Your task to perform on an android device: check out phone information Image 0: 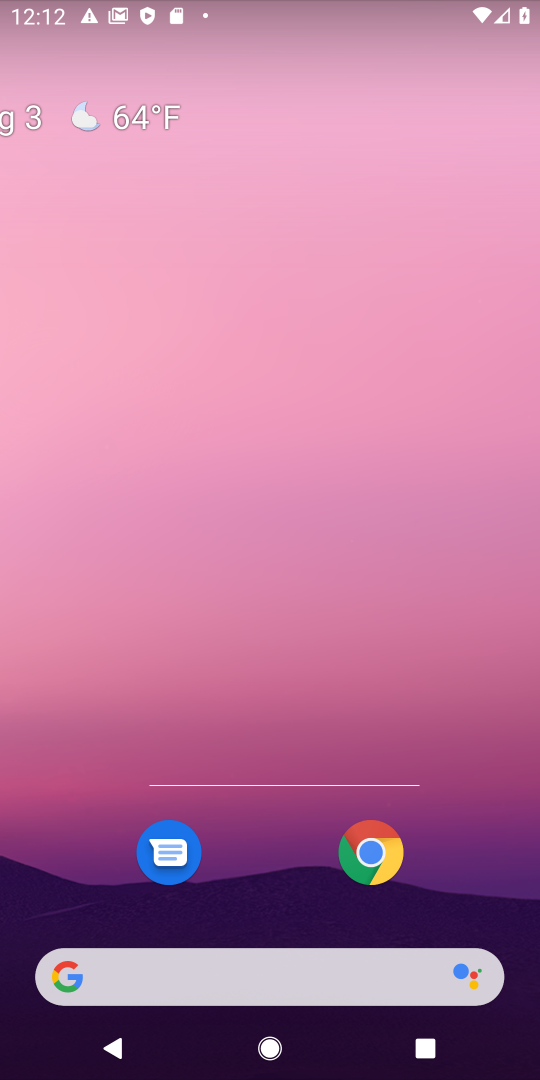
Step 0: drag from (265, 895) to (319, 13)
Your task to perform on an android device: check out phone information Image 1: 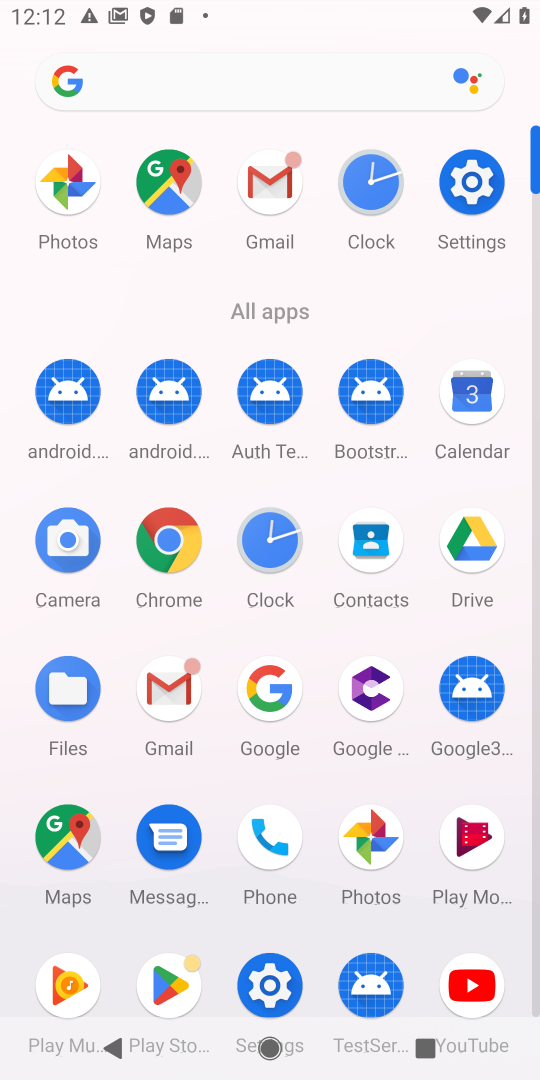
Step 1: click (468, 176)
Your task to perform on an android device: check out phone information Image 2: 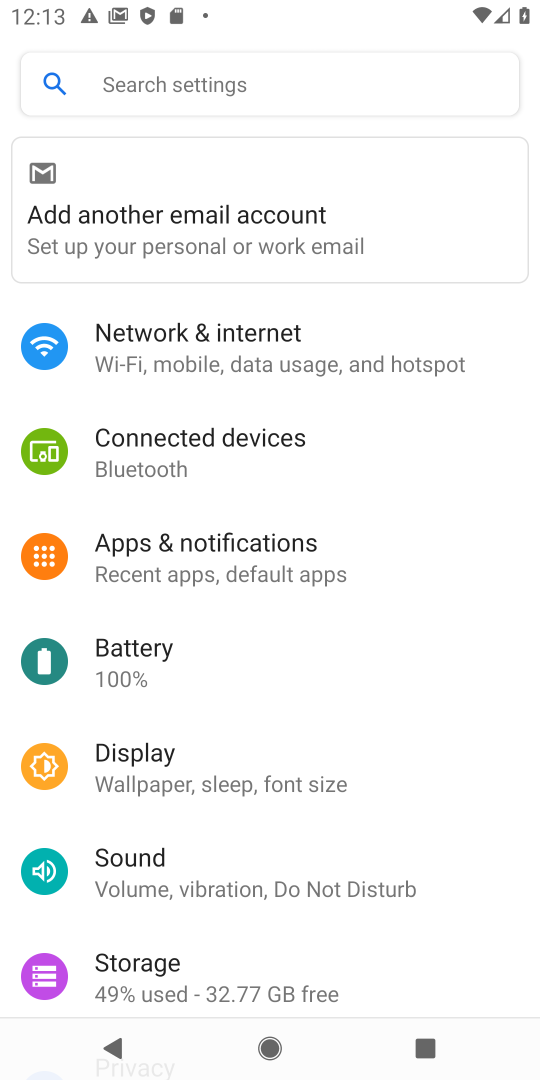
Step 2: drag from (219, 952) to (280, 39)
Your task to perform on an android device: check out phone information Image 3: 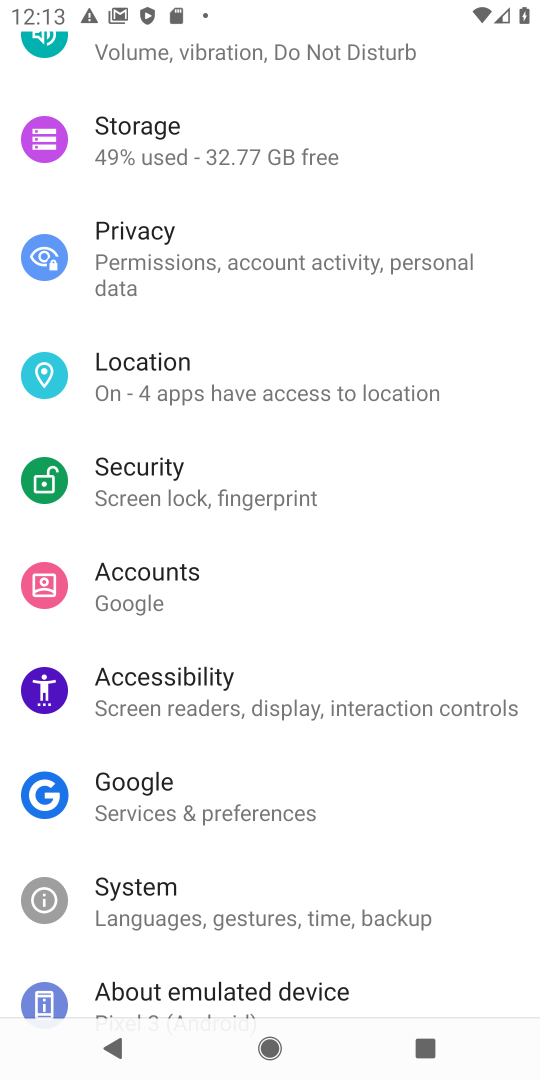
Step 3: click (250, 983)
Your task to perform on an android device: check out phone information Image 4: 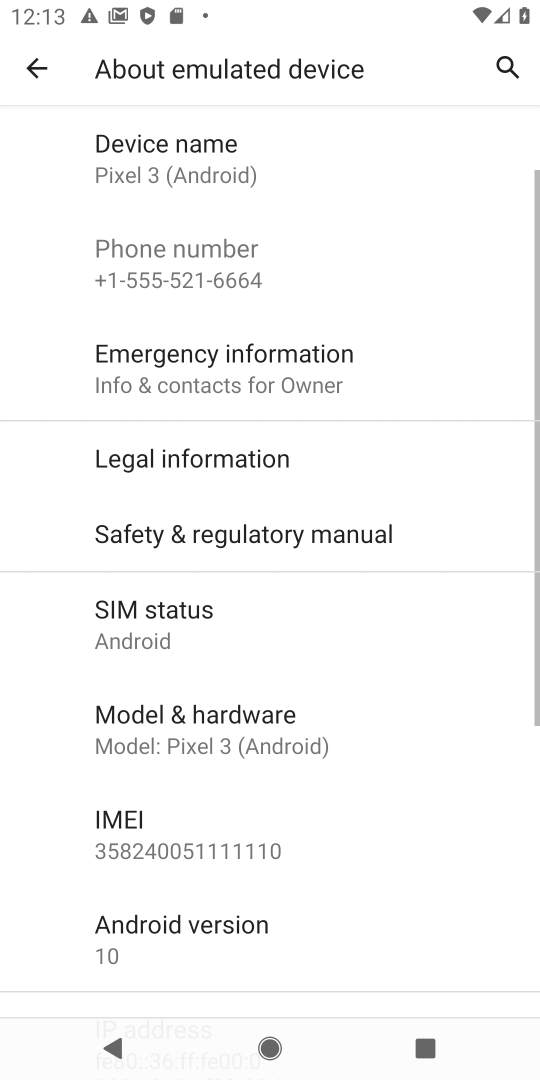
Step 4: task complete